Your task to perform on an android device: turn off javascript in the chrome app Image 0: 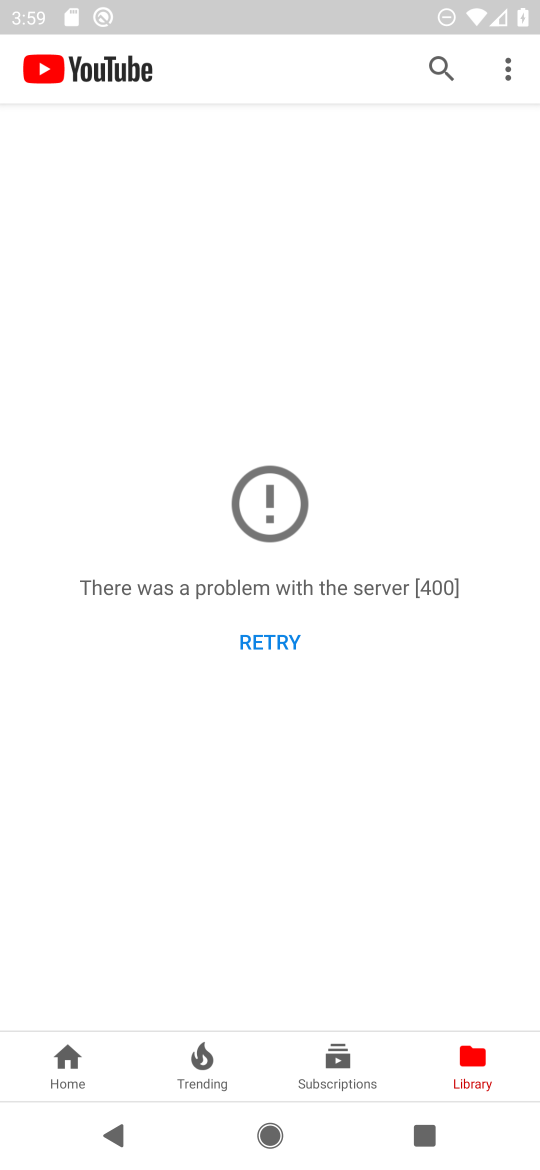
Step 0: press back button
Your task to perform on an android device: turn off javascript in the chrome app Image 1: 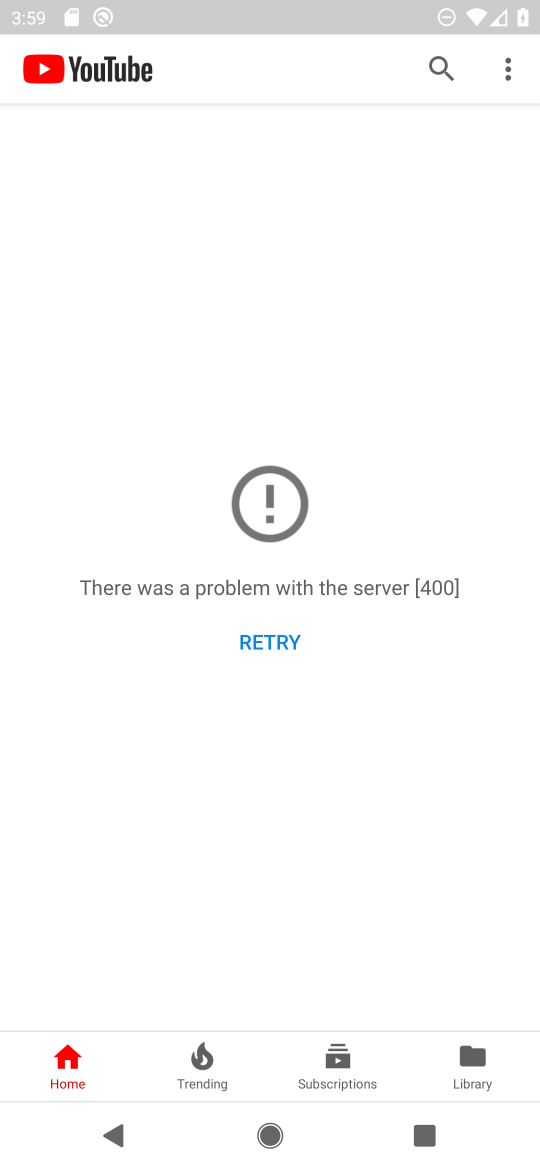
Step 1: press home button
Your task to perform on an android device: turn off javascript in the chrome app Image 2: 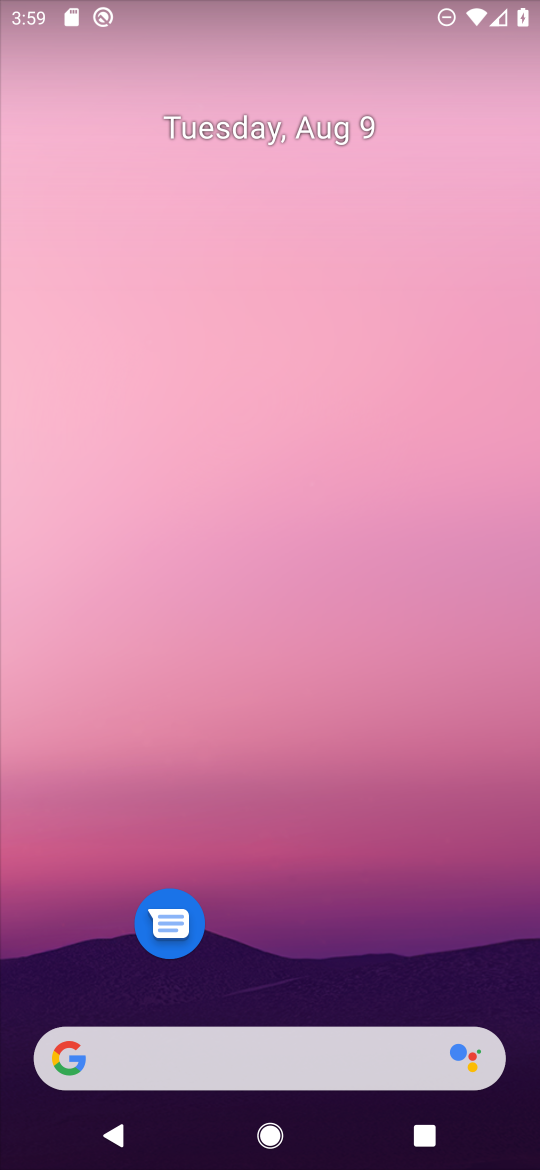
Step 2: drag from (308, 998) to (424, 126)
Your task to perform on an android device: turn off javascript in the chrome app Image 3: 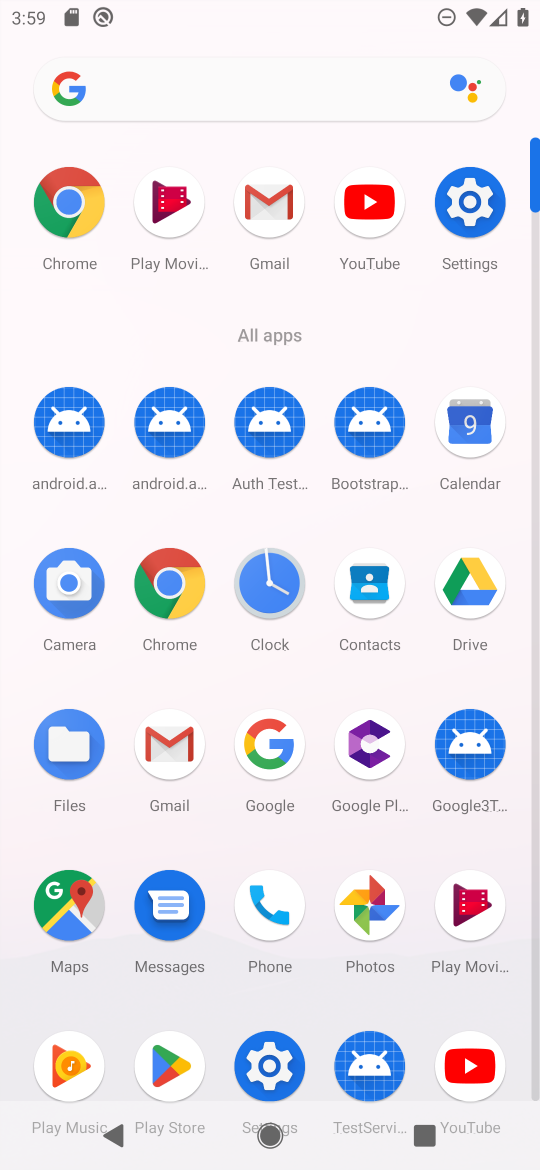
Step 3: click (75, 188)
Your task to perform on an android device: turn off javascript in the chrome app Image 4: 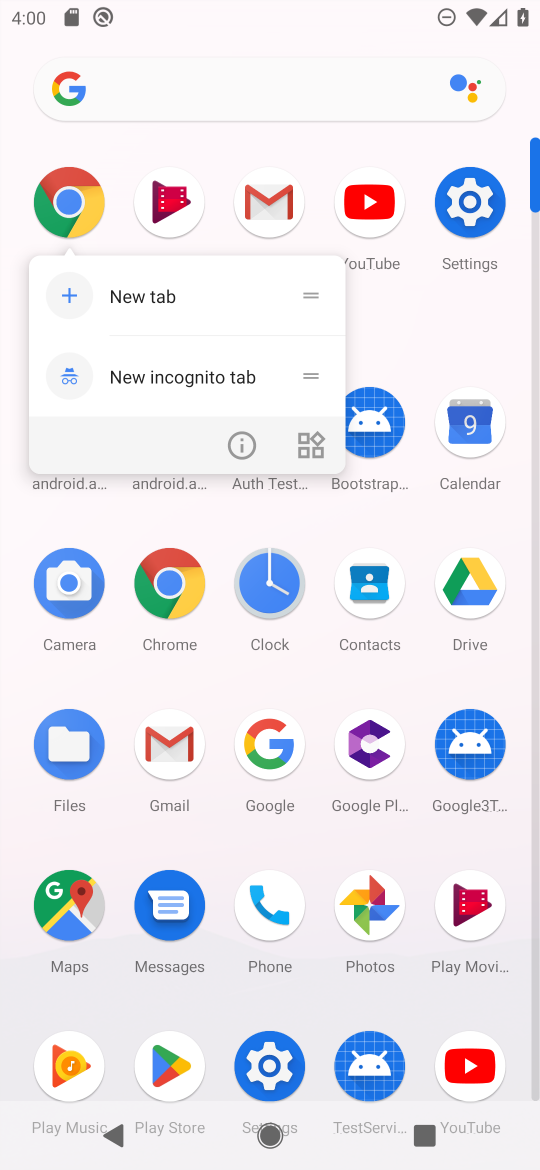
Step 4: click (78, 201)
Your task to perform on an android device: turn off javascript in the chrome app Image 5: 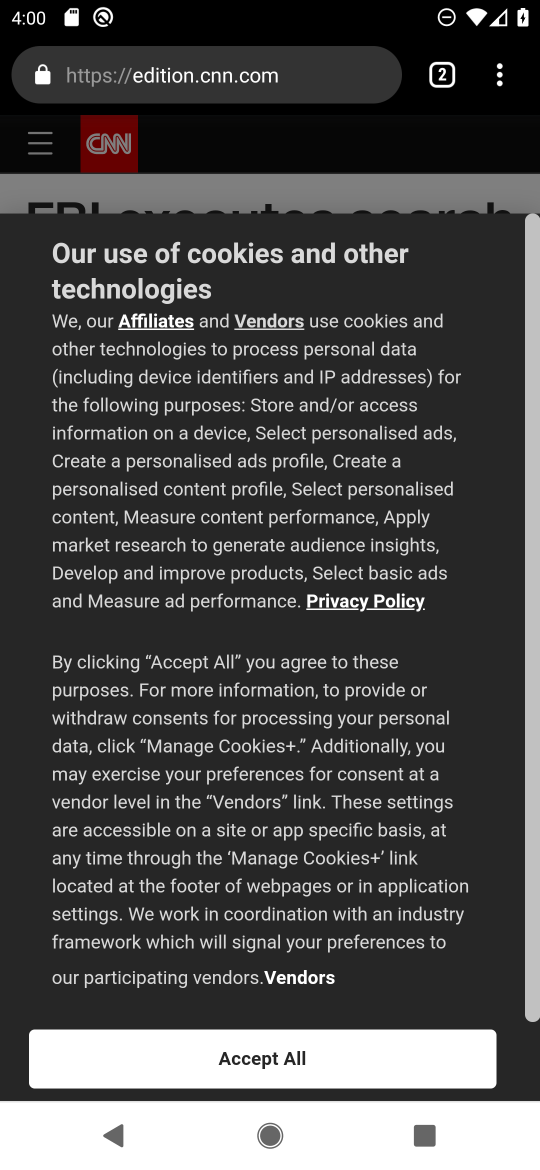
Step 5: drag from (500, 69) to (213, 922)
Your task to perform on an android device: turn off javascript in the chrome app Image 6: 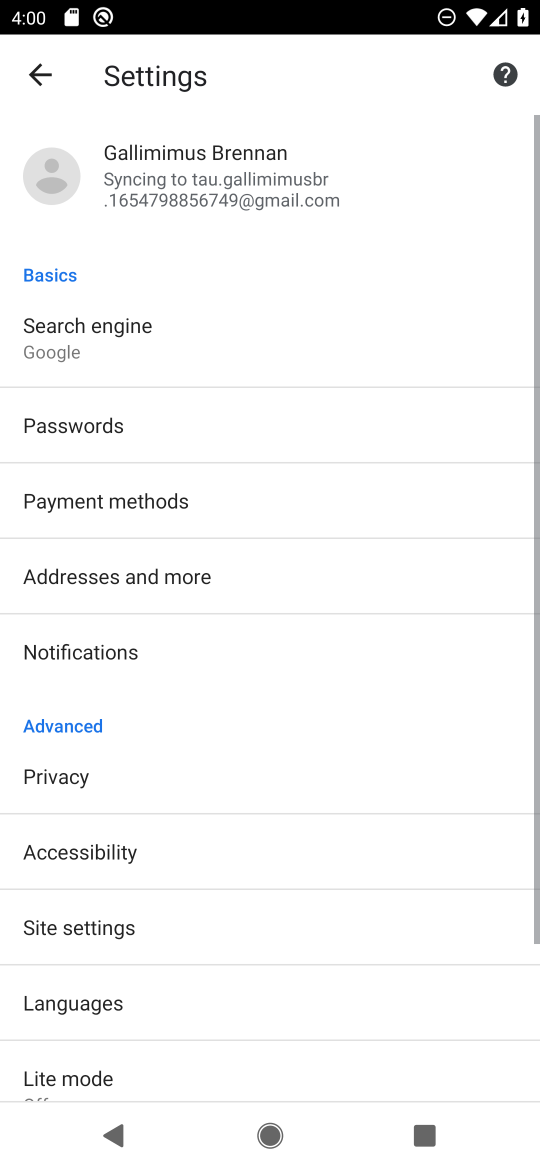
Step 6: drag from (222, 919) to (333, 346)
Your task to perform on an android device: turn off javascript in the chrome app Image 7: 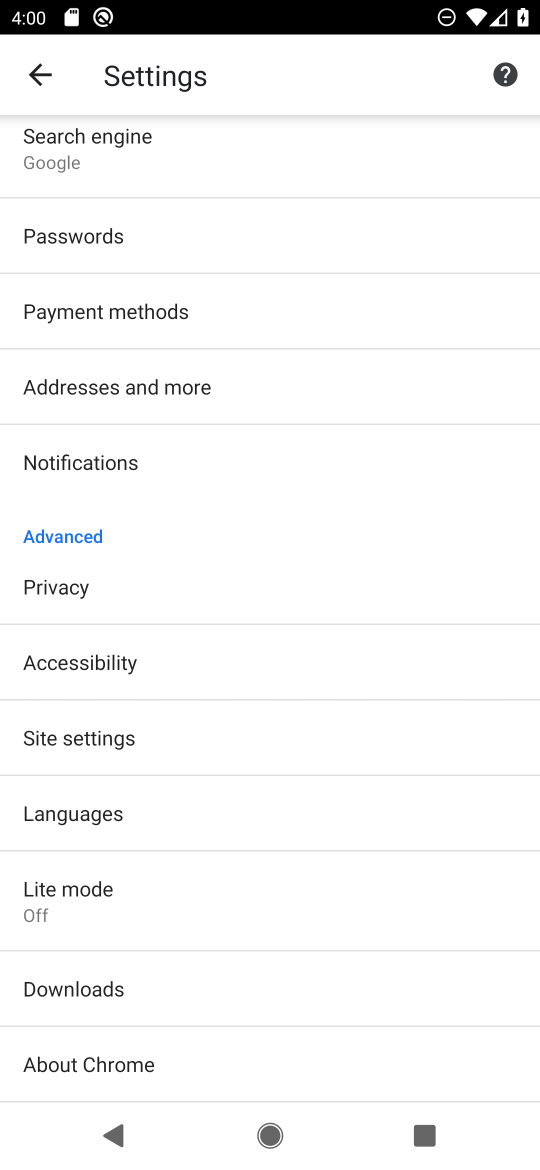
Step 7: click (94, 739)
Your task to perform on an android device: turn off javascript in the chrome app Image 8: 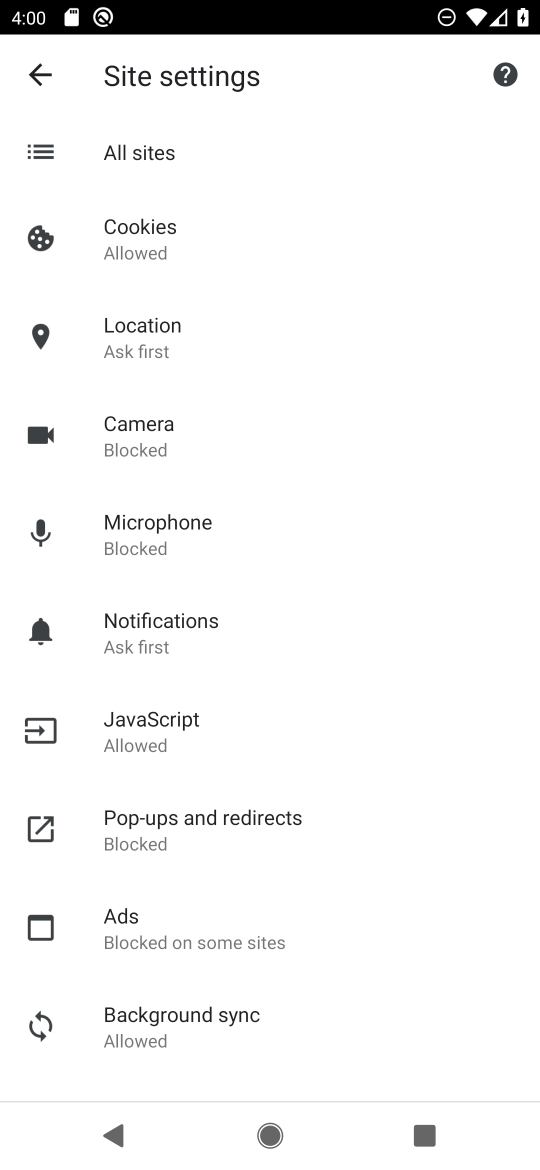
Step 8: click (152, 733)
Your task to perform on an android device: turn off javascript in the chrome app Image 9: 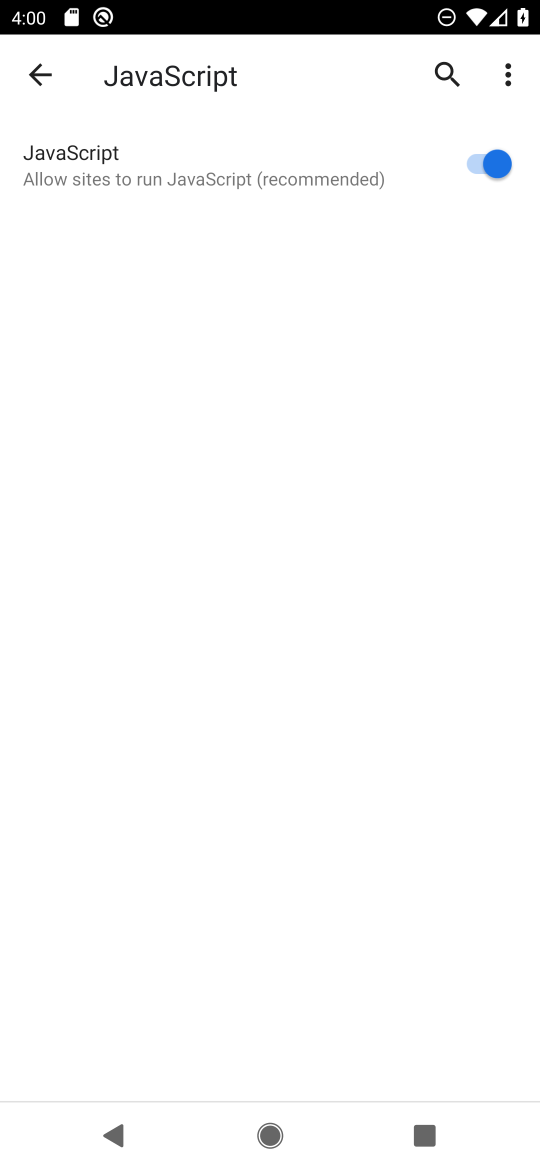
Step 9: click (502, 161)
Your task to perform on an android device: turn off javascript in the chrome app Image 10: 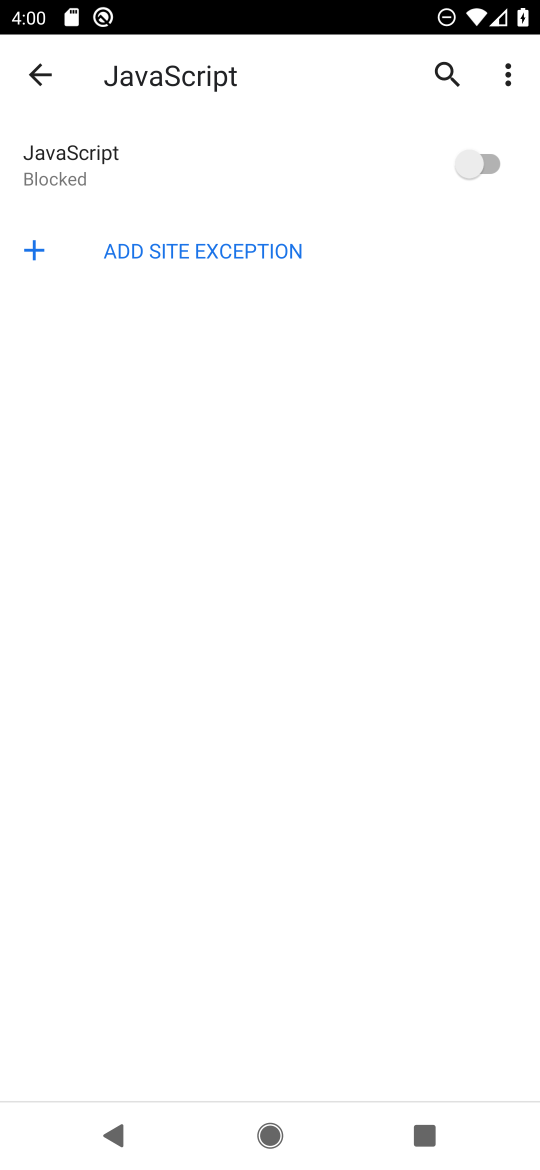
Step 10: task complete